Your task to perform on an android device: open device folders in google photos Image 0: 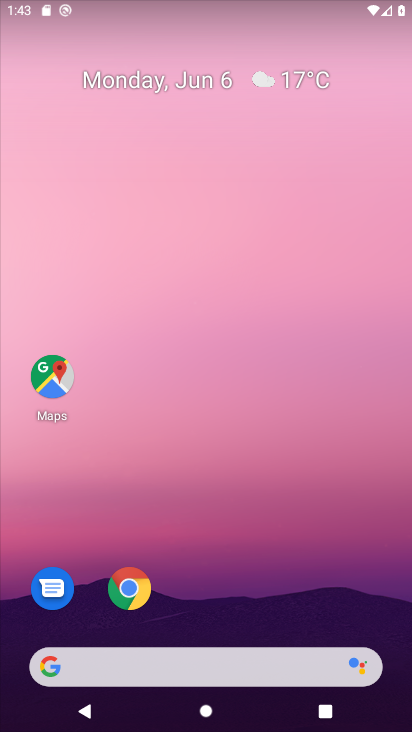
Step 0: drag from (223, 613) to (224, 141)
Your task to perform on an android device: open device folders in google photos Image 1: 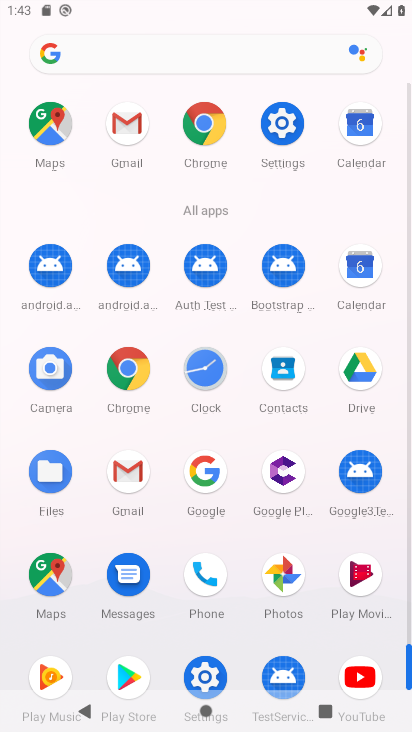
Step 1: click (285, 585)
Your task to perform on an android device: open device folders in google photos Image 2: 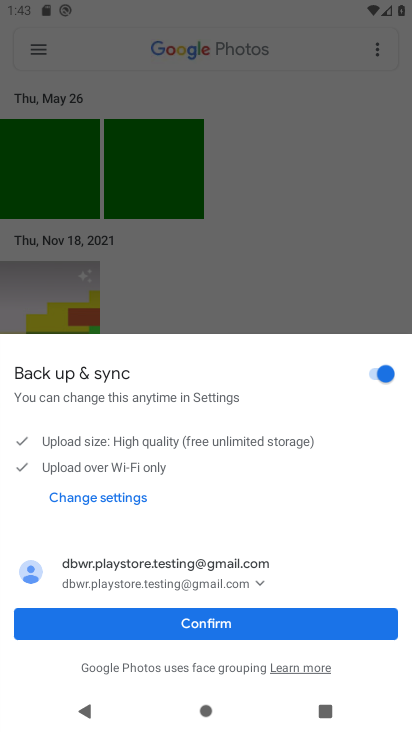
Step 2: click (201, 628)
Your task to perform on an android device: open device folders in google photos Image 3: 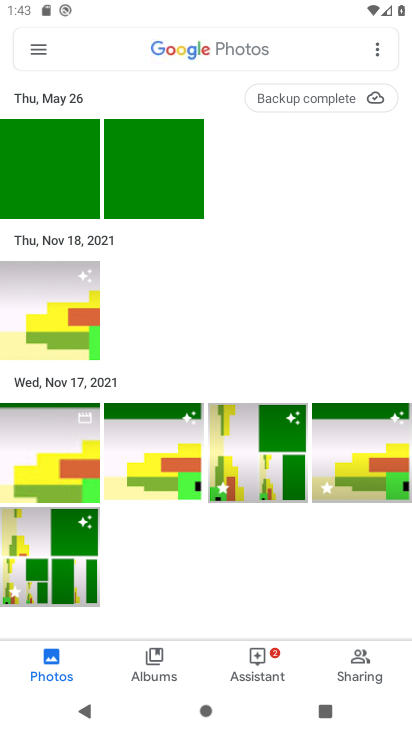
Step 3: click (42, 55)
Your task to perform on an android device: open device folders in google photos Image 4: 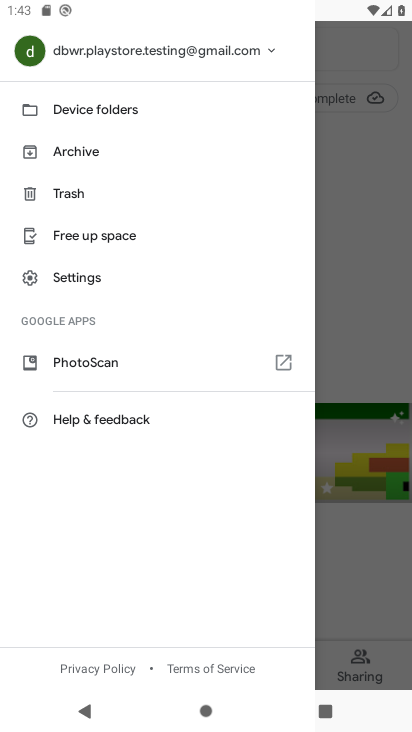
Step 4: click (95, 108)
Your task to perform on an android device: open device folders in google photos Image 5: 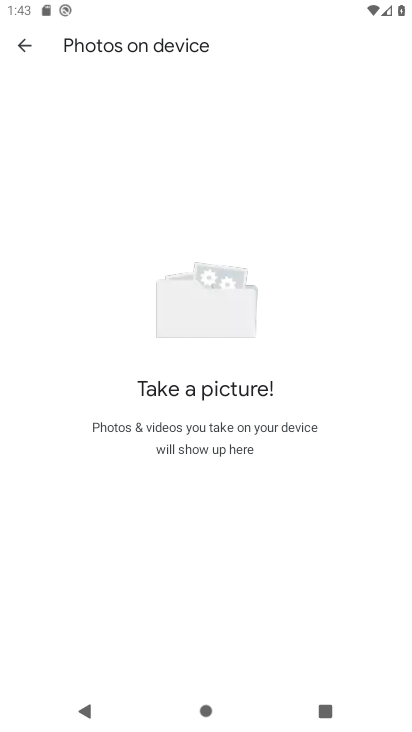
Step 5: task complete